Your task to perform on an android device: Open the calendar and show me this week's events? Image 0: 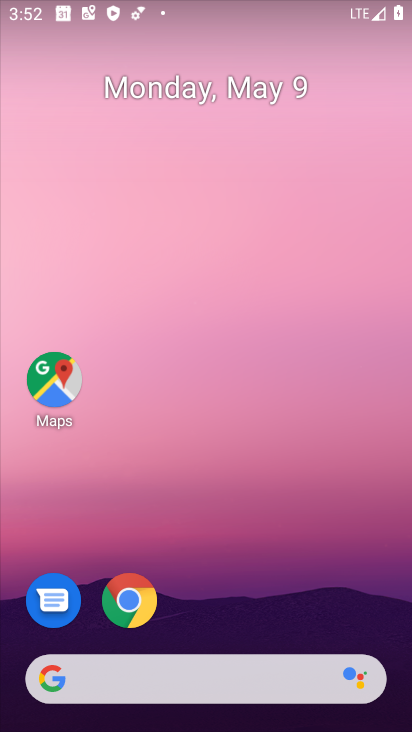
Step 0: drag from (170, 672) to (276, 0)
Your task to perform on an android device: Open the calendar and show me this week's events? Image 1: 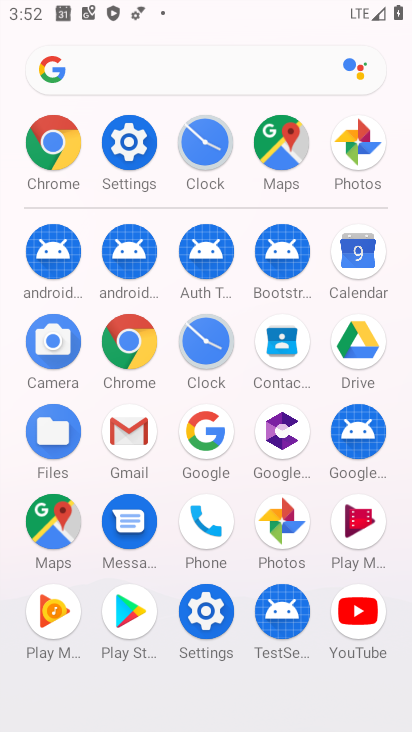
Step 1: click (364, 268)
Your task to perform on an android device: Open the calendar and show me this week's events? Image 2: 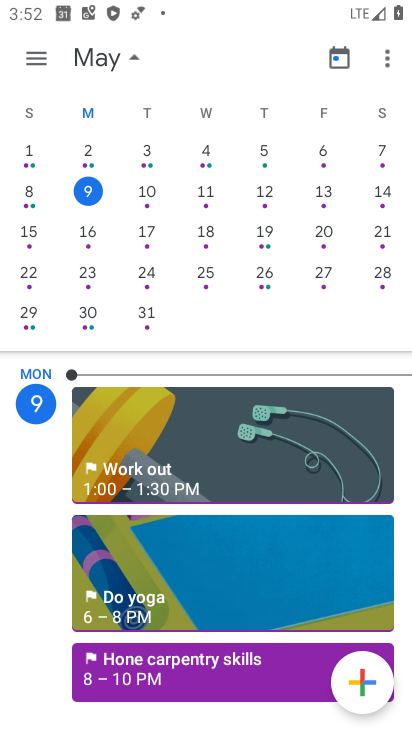
Step 2: task complete